Your task to perform on an android device: Open Google Maps and go to "Timeline" Image 0: 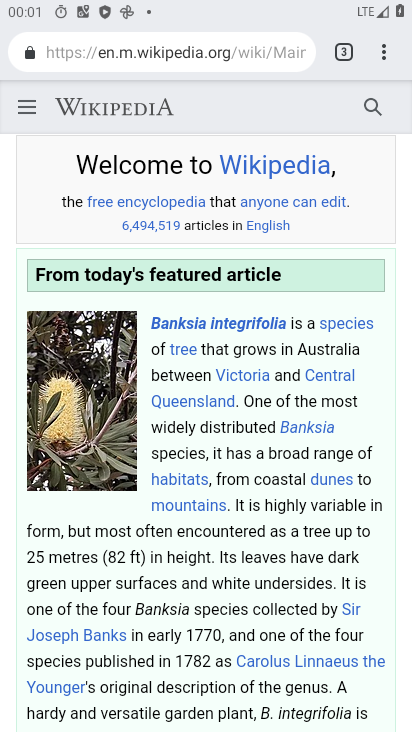
Step 0: press home button
Your task to perform on an android device: Open Google Maps and go to "Timeline" Image 1: 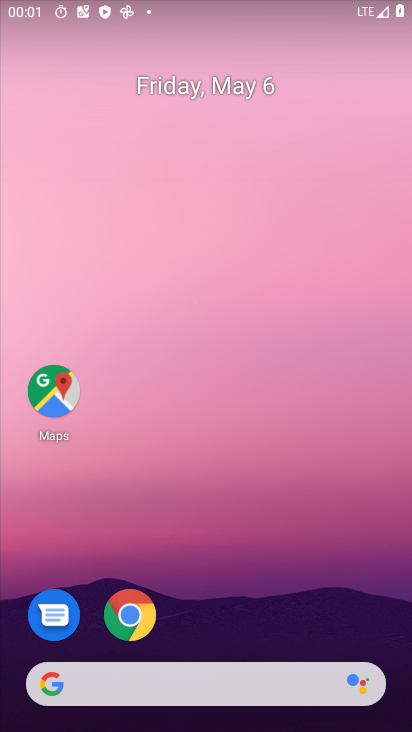
Step 1: click (54, 393)
Your task to perform on an android device: Open Google Maps and go to "Timeline" Image 2: 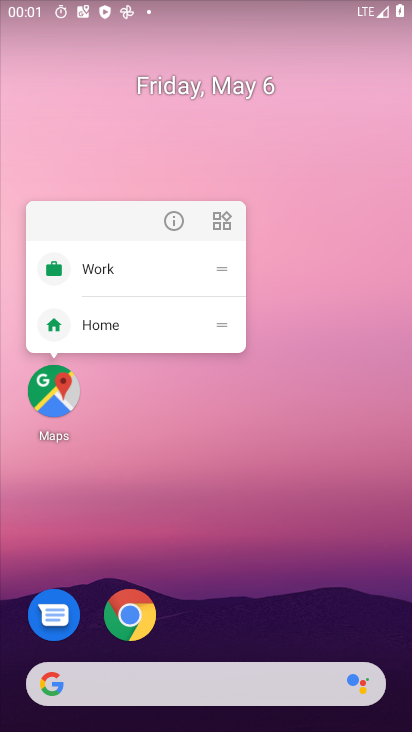
Step 2: click (54, 393)
Your task to perform on an android device: Open Google Maps and go to "Timeline" Image 3: 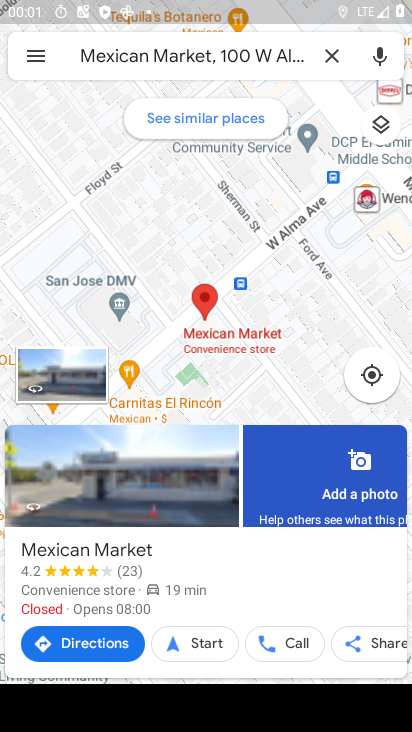
Step 3: click (38, 55)
Your task to perform on an android device: Open Google Maps and go to "Timeline" Image 4: 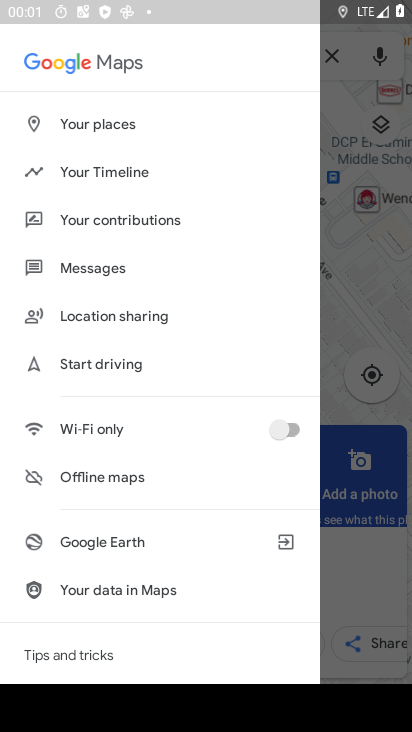
Step 4: click (108, 176)
Your task to perform on an android device: Open Google Maps and go to "Timeline" Image 5: 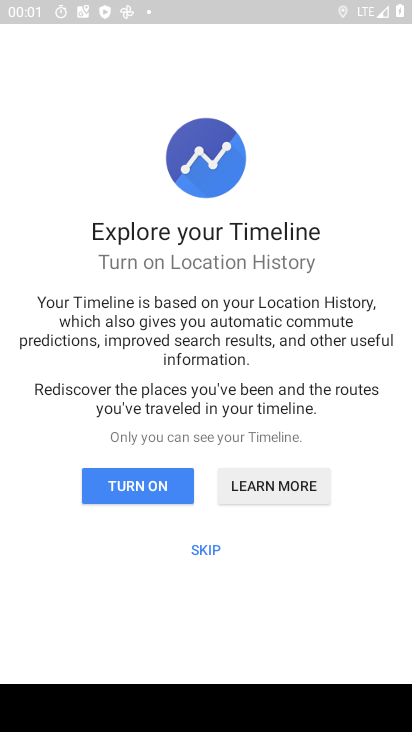
Step 5: click (149, 489)
Your task to perform on an android device: Open Google Maps and go to "Timeline" Image 6: 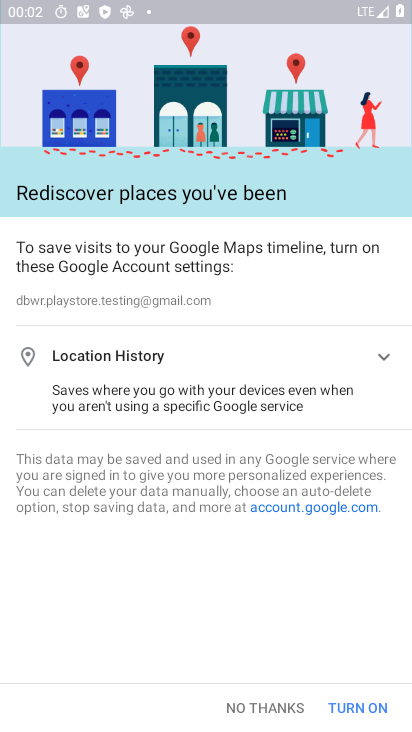
Step 6: click (355, 707)
Your task to perform on an android device: Open Google Maps and go to "Timeline" Image 7: 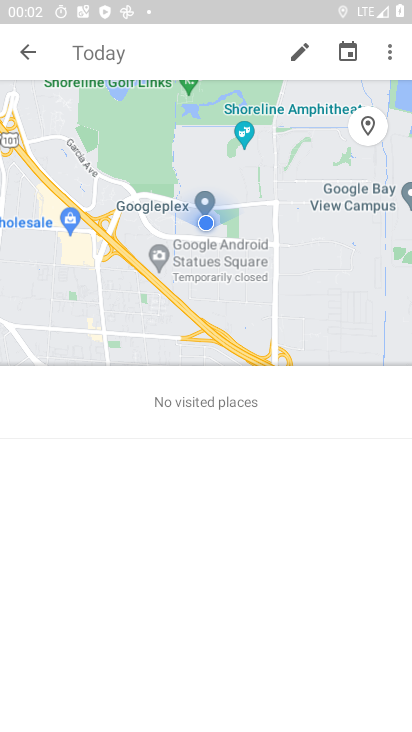
Step 7: task complete